Your task to perform on an android device: Open ESPN.com Image 0: 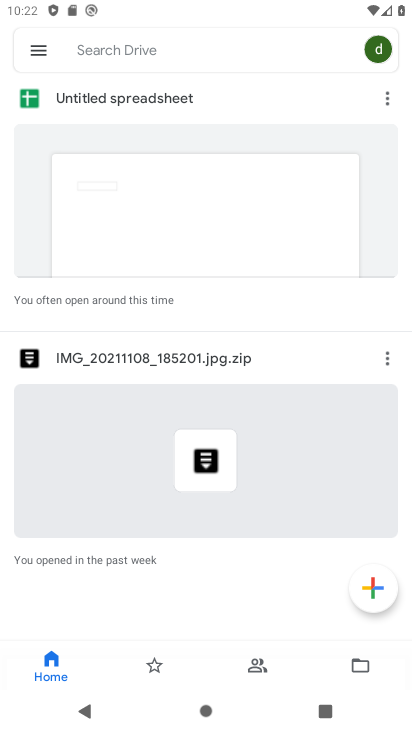
Step 0: press home button
Your task to perform on an android device: Open ESPN.com Image 1: 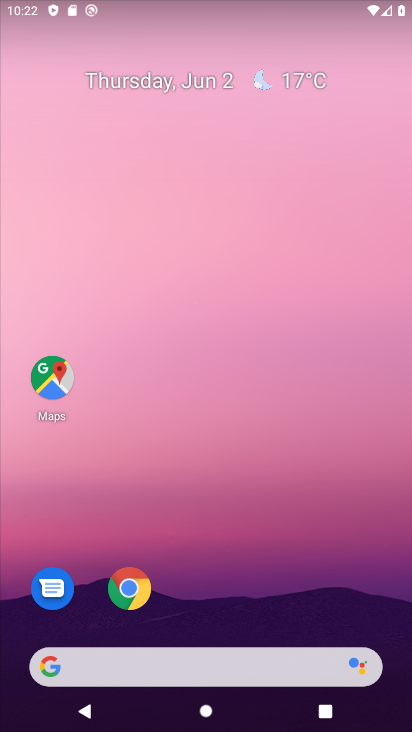
Step 1: click (135, 585)
Your task to perform on an android device: Open ESPN.com Image 2: 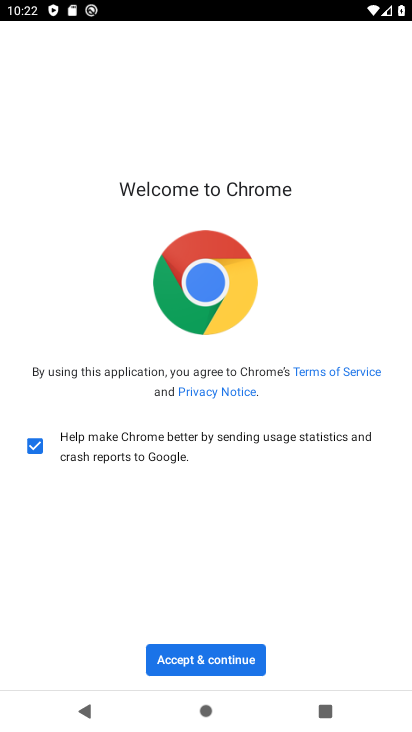
Step 2: click (227, 661)
Your task to perform on an android device: Open ESPN.com Image 3: 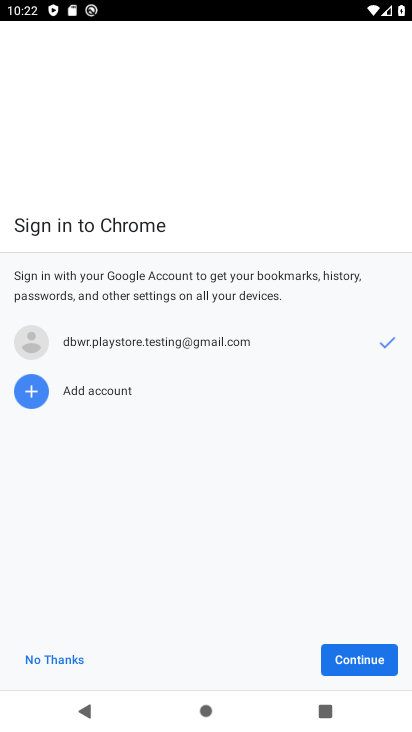
Step 3: click (361, 649)
Your task to perform on an android device: Open ESPN.com Image 4: 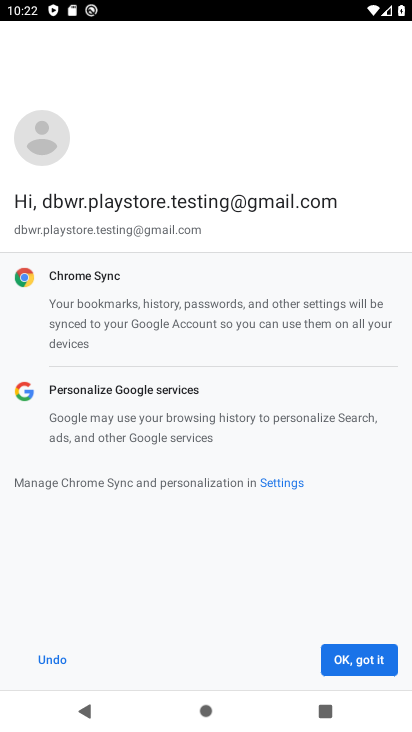
Step 4: click (375, 662)
Your task to perform on an android device: Open ESPN.com Image 5: 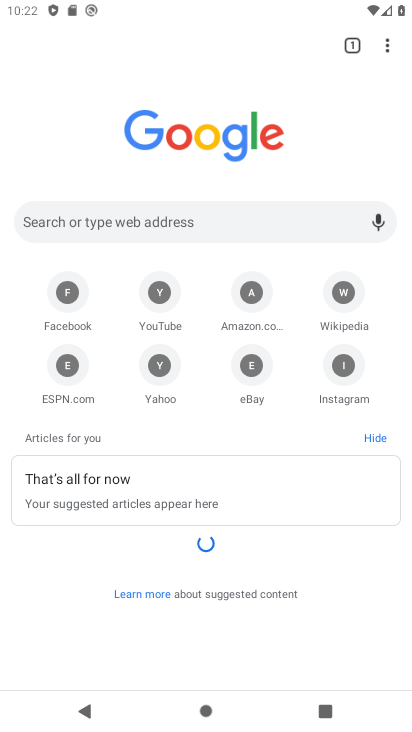
Step 5: click (76, 376)
Your task to perform on an android device: Open ESPN.com Image 6: 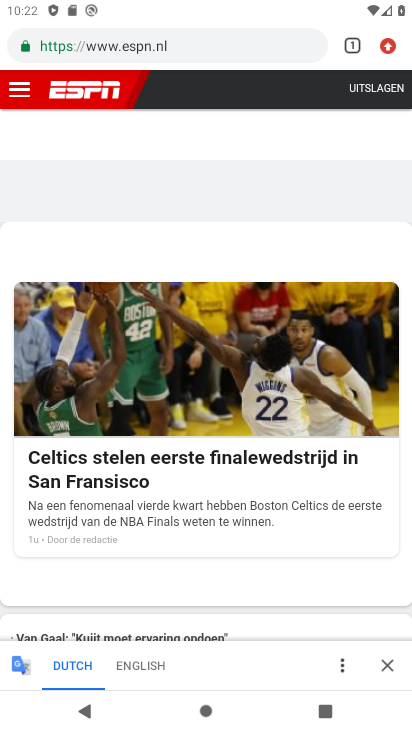
Step 6: task complete